Your task to perform on an android device: Go to CNN.com Image 0: 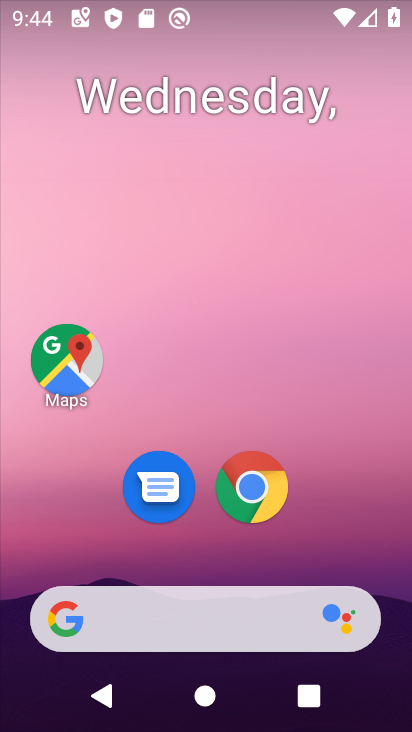
Step 0: click (235, 484)
Your task to perform on an android device: Go to CNN.com Image 1: 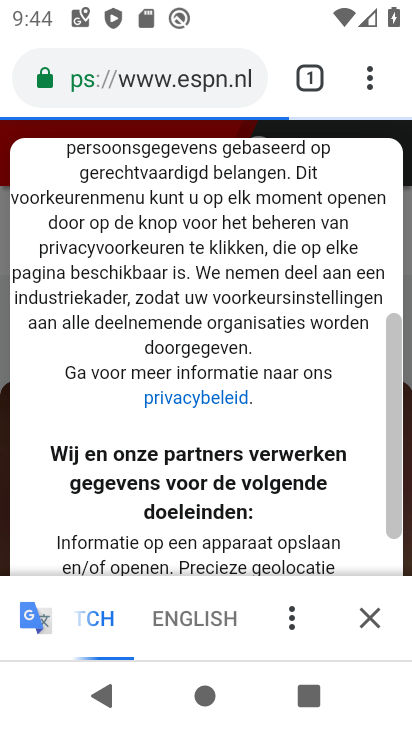
Step 1: click (324, 76)
Your task to perform on an android device: Go to CNN.com Image 2: 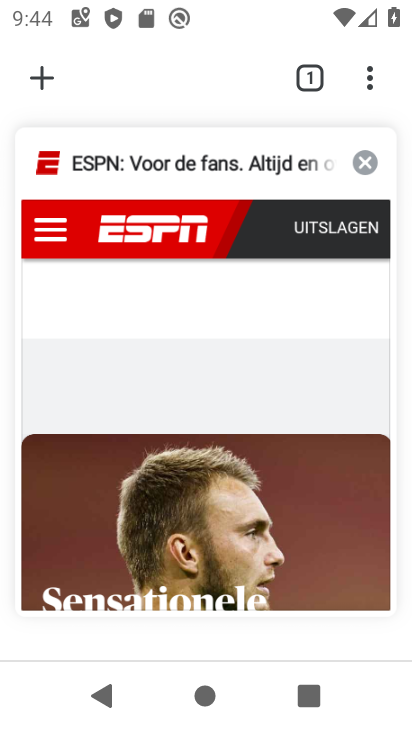
Step 2: click (41, 72)
Your task to perform on an android device: Go to CNN.com Image 3: 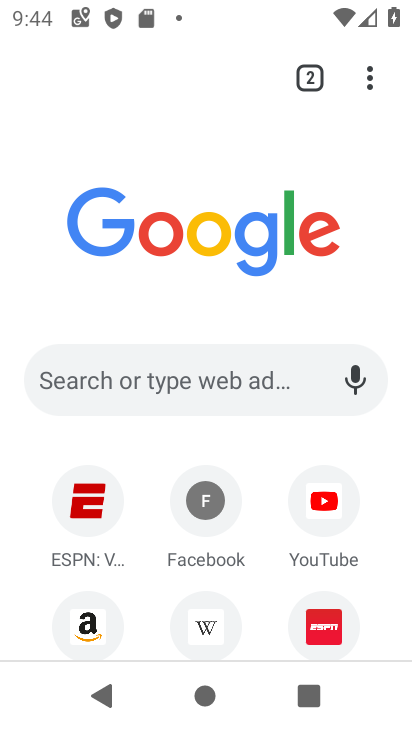
Step 3: click (147, 364)
Your task to perform on an android device: Go to CNN.com Image 4: 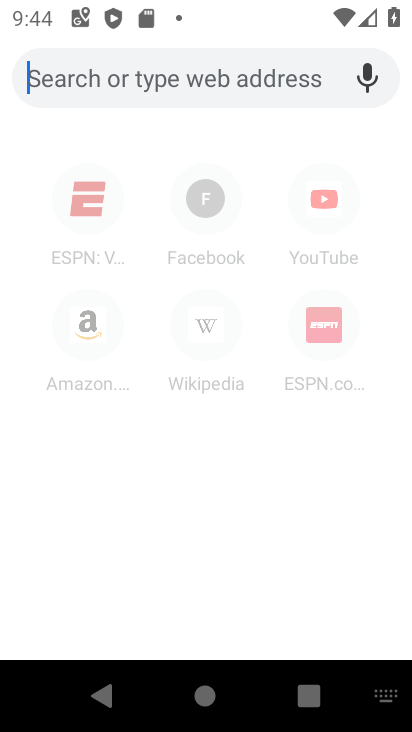
Step 4: type "cnn.com"
Your task to perform on an android device: Go to CNN.com Image 5: 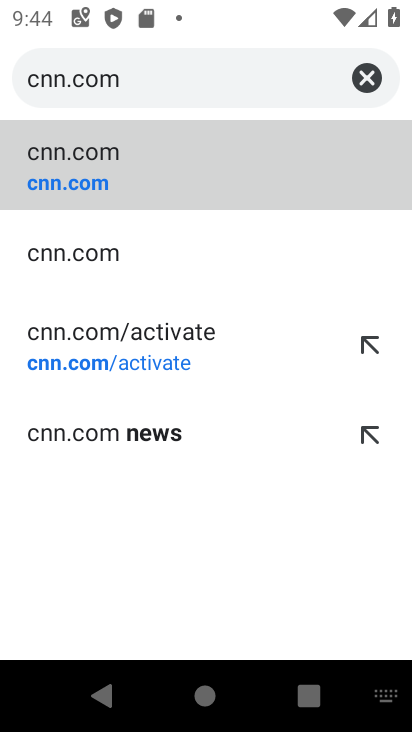
Step 5: click (70, 157)
Your task to perform on an android device: Go to CNN.com Image 6: 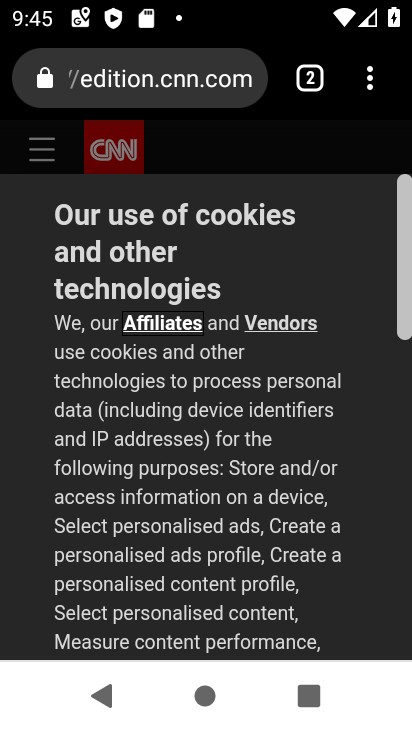
Step 6: task complete